Your task to perform on an android device: toggle notification dots Image 0: 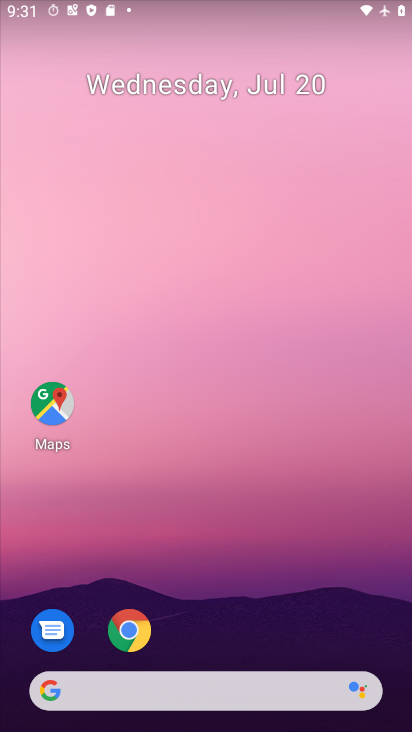
Step 0: drag from (276, 648) to (241, 28)
Your task to perform on an android device: toggle notification dots Image 1: 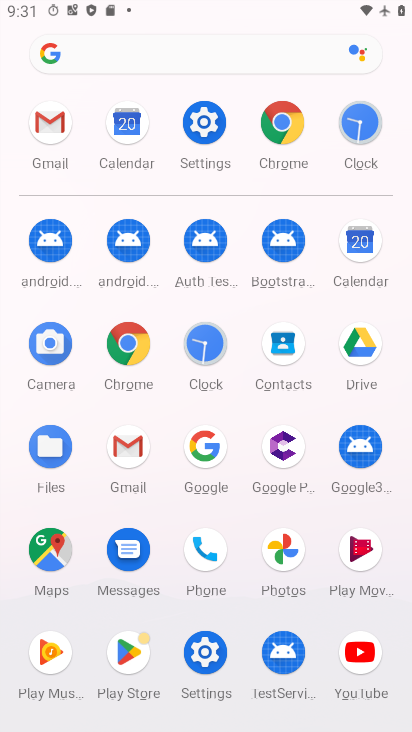
Step 1: click (206, 146)
Your task to perform on an android device: toggle notification dots Image 2: 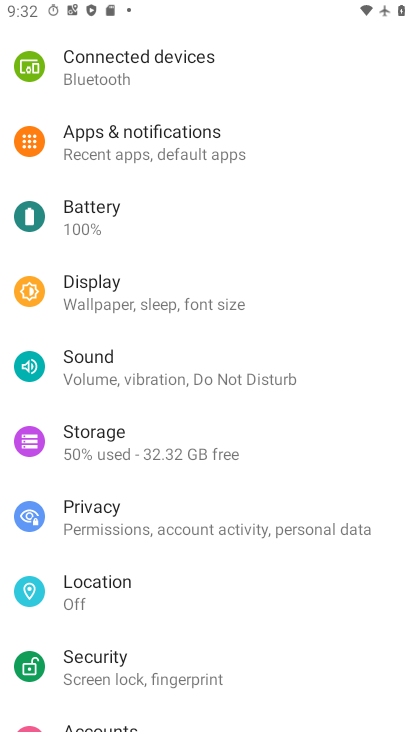
Step 2: click (216, 154)
Your task to perform on an android device: toggle notification dots Image 3: 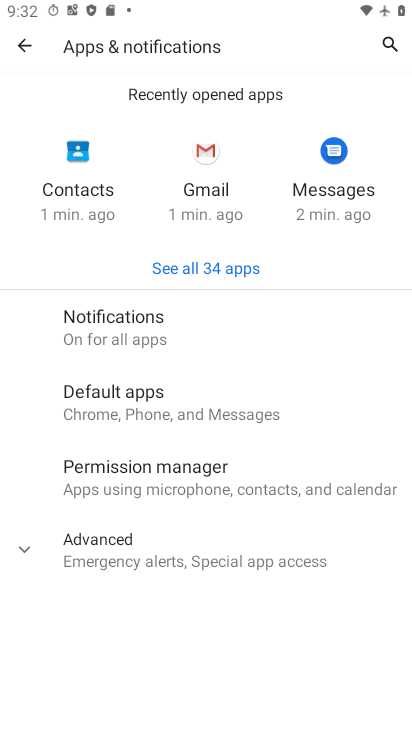
Step 3: click (154, 327)
Your task to perform on an android device: toggle notification dots Image 4: 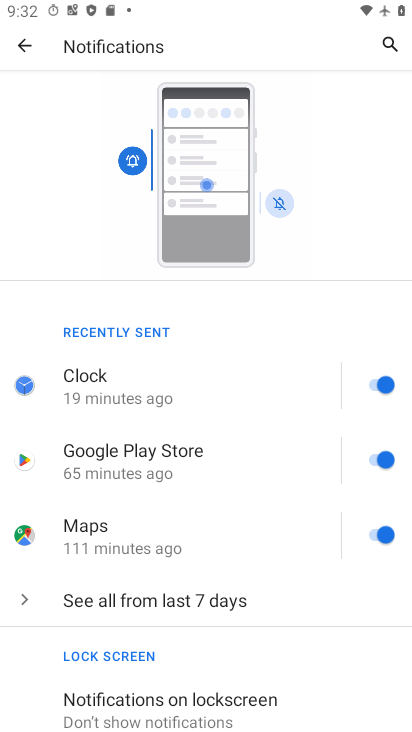
Step 4: drag from (203, 572) to (232, 169)
Your task to perform on an android device: toggle notification dots Image 5: 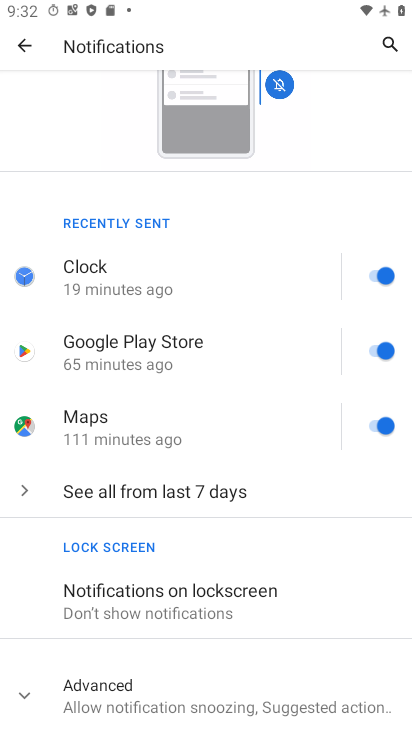
Step 5: click (197, 688)
Your task to perform on an android device: toggle notification dots Image 6: 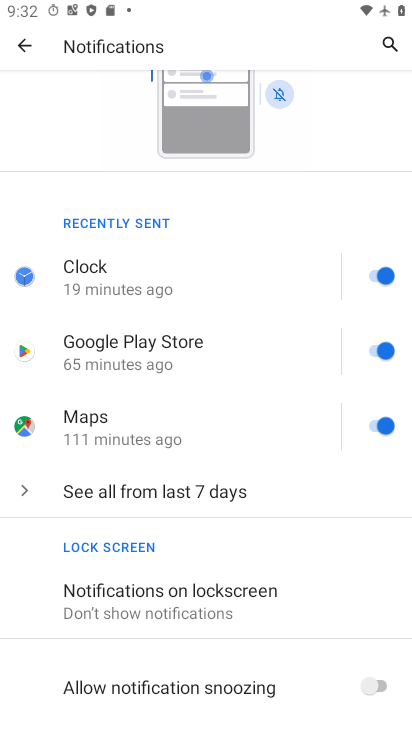
Step 6: task complete